Your task to perform on an android device: change the clock display to show seconds Image 0: 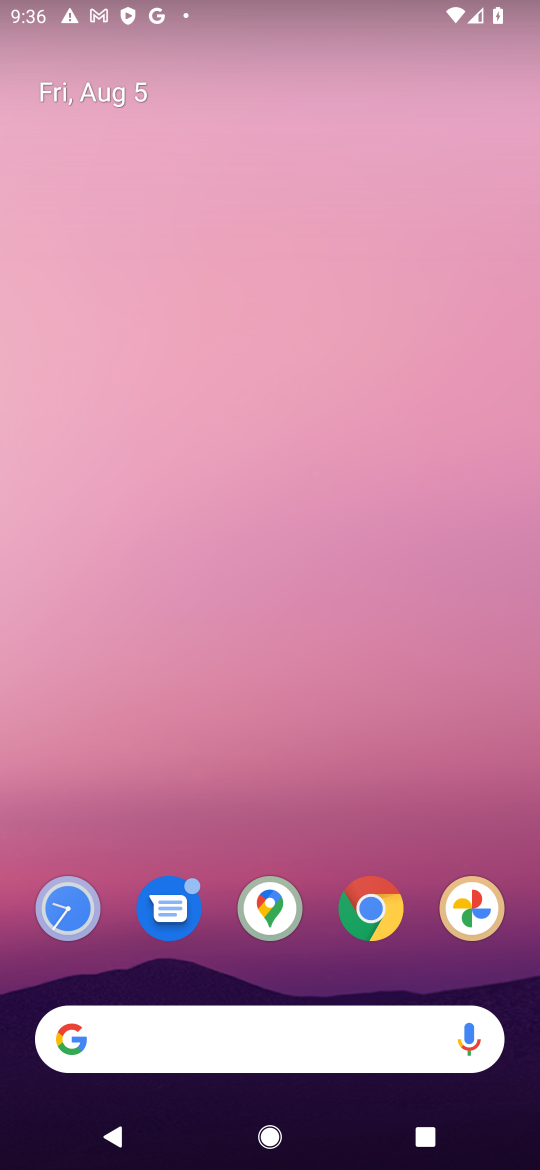
Step 0: drag from (301, 783) to (310, 54)
Your task to perform on an android device: change the clock display to show seconds Image 1: 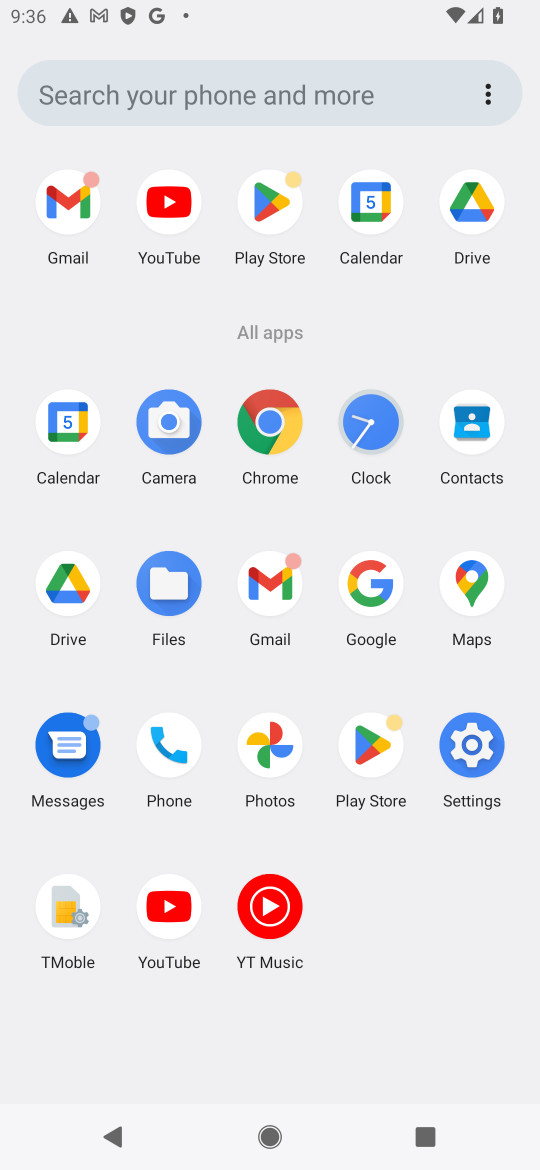
Step 1: click (368, 416)
Your task to perform on an android device: change the clock display to show seconds Image 2: 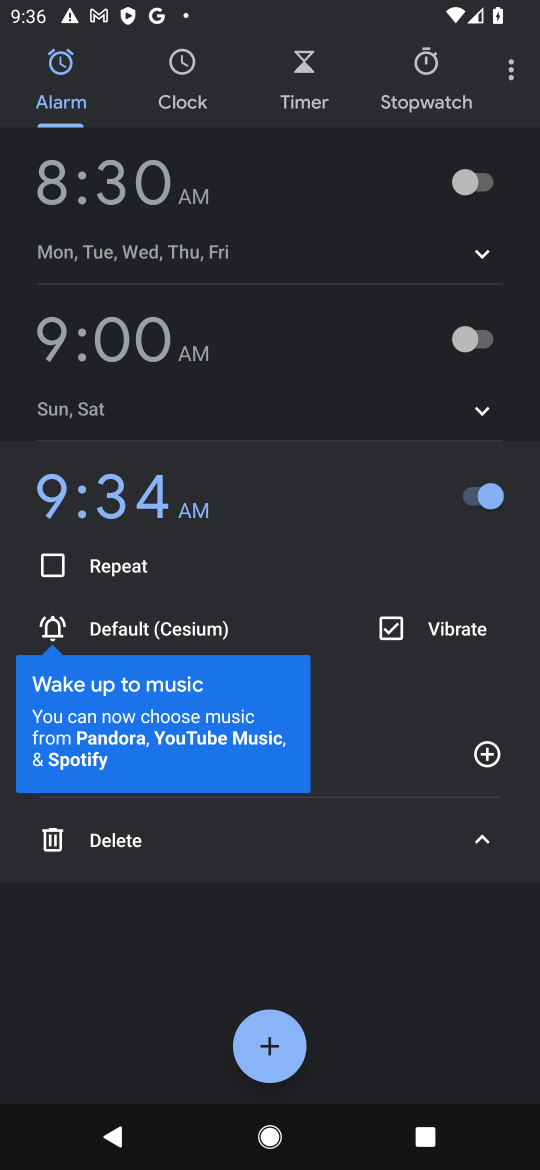
Step 2: click (519, 80)
Your task to perform on an android device: change the clock display to show seconds Image 3: 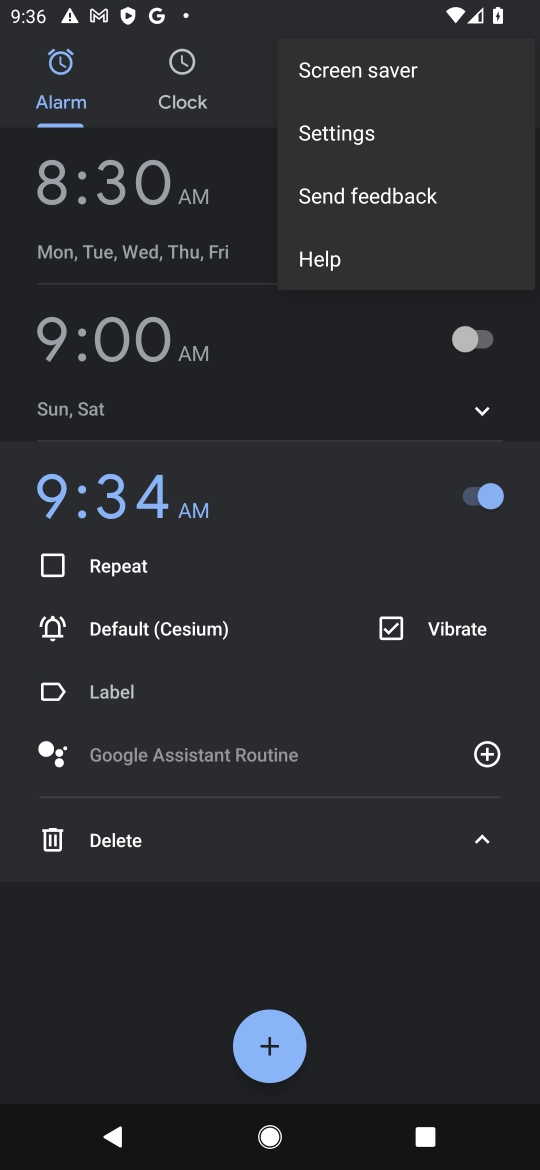
Step 3: click (348, 132)
Your task to perform on an android device: change the clock display to show seconds Image 4: 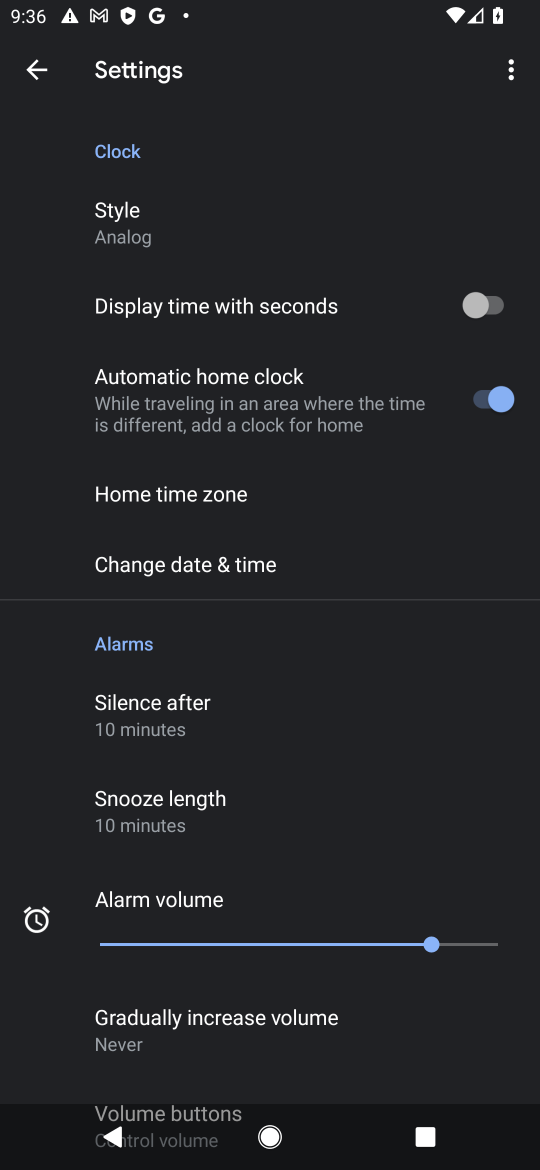
Step 4: click (486, 282)
Your task to perform on an android device: change the clock display to show seconds Image 5: 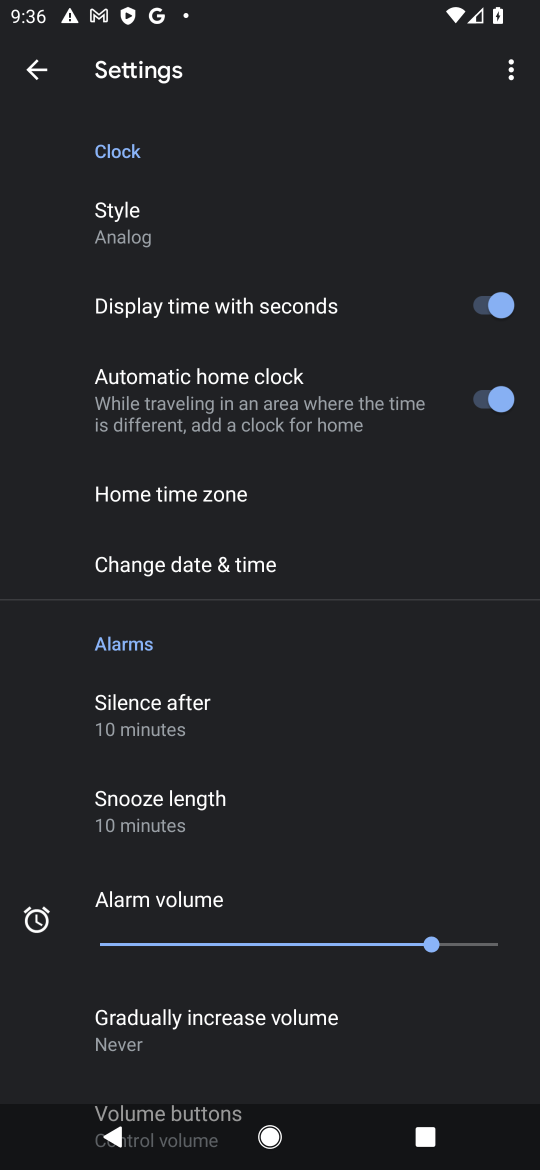
Step 5: task complete